Your task to perform on an android device: Search for Mexican restaurants on Maps Image 0: 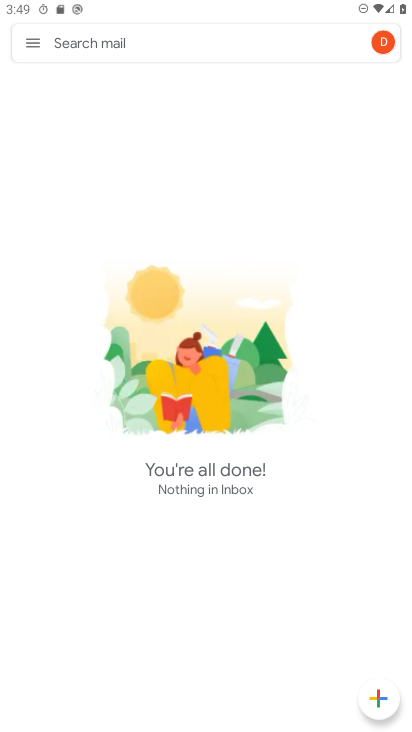
Step 0: press home button
Your task to perform on an android device: Search for Mexican restaurants on Maps Image 1: 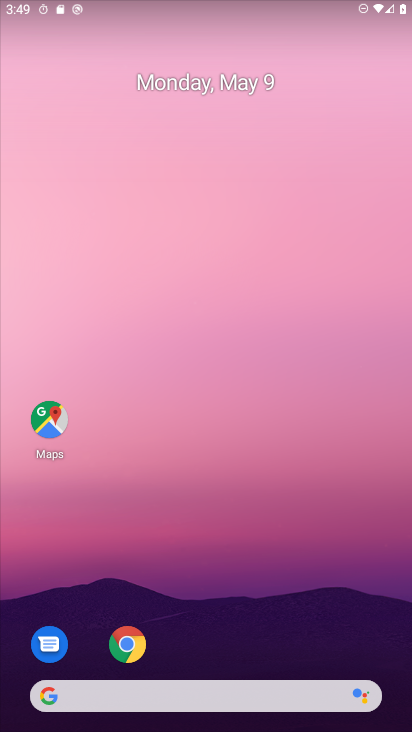
Step 1: click (58, 421)
Your task to perform on an android device: Search for Mexican restaurants on Maps Image 2: 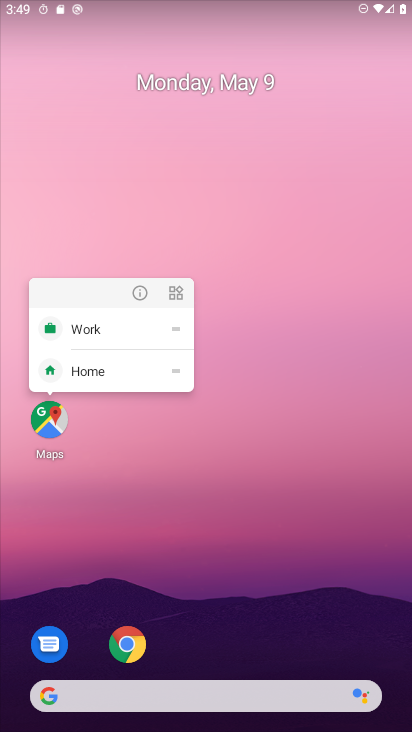
Step 2: click (53, 447)
Your task to perform on an android device: Search for Mexican restaurants on Maps Image 3: 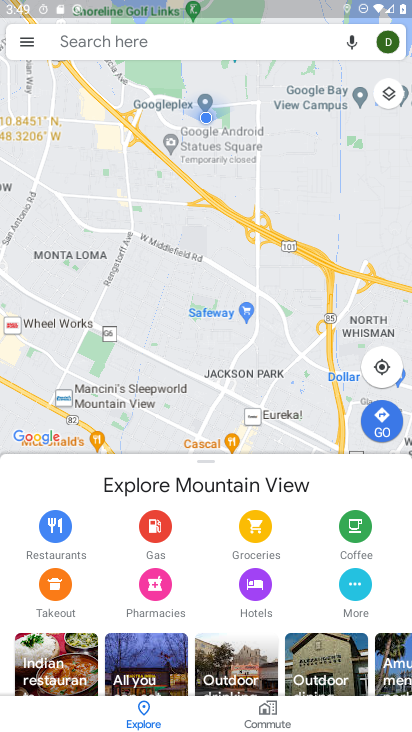
Step 3: click (171, 35)
Your task to perform on an android device: Search for Mexican restaurants on Maps Image 4: 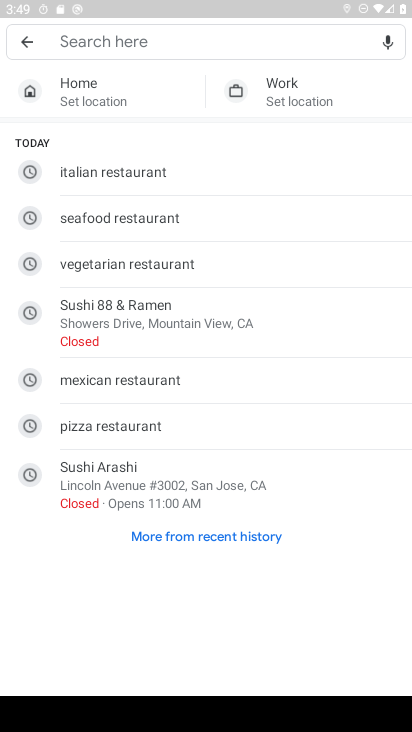
Step 4: click (99, 375)
Your task to perform on an android device: Search for Mexican restaurants on Maps Image 5: 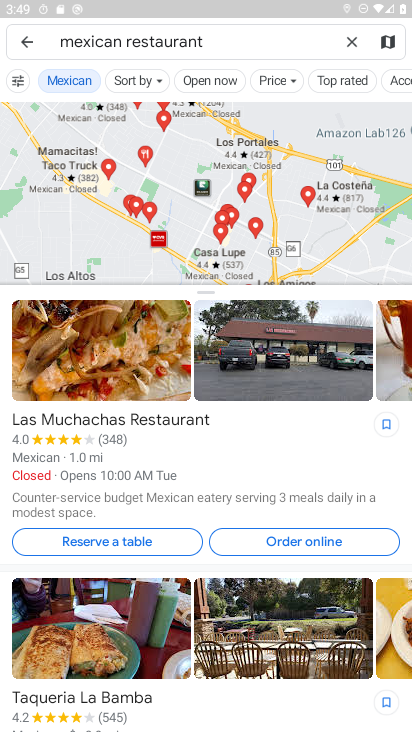
Step 5: task complete